Your task to perform on an android device: search for starred emails in the gmail app Image 0: 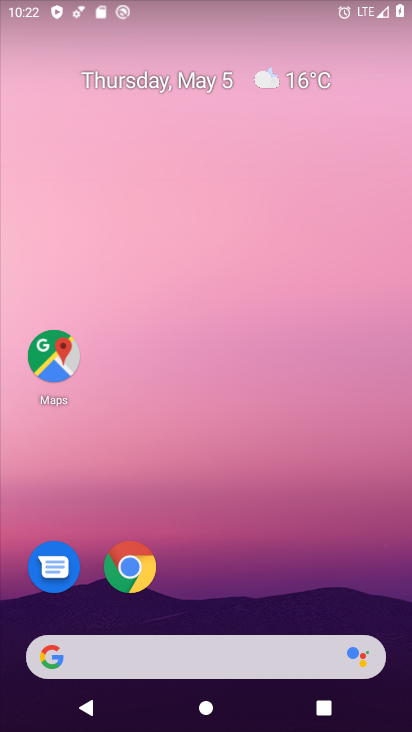
Step 0: drag from (284, 531) to (306, 74)
Your task to perform on an android device: search for starred emails in the gmail app Image 1: 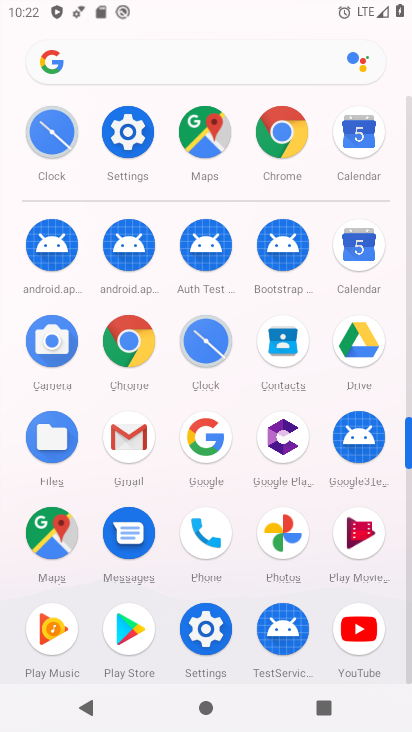
Step 1: click (138, 438)
Your task to perform on an android device: search for starred emails in the gmail app Image 2: 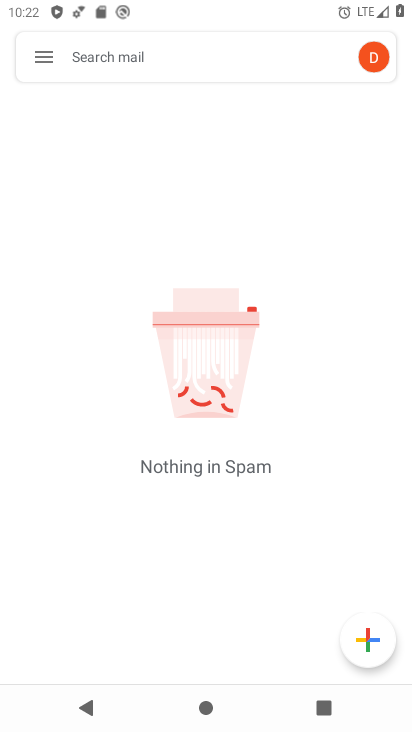
Step 2: click (42, 58)
Your task to perform on an android device: search for starred emails in the gmail app Image 3: 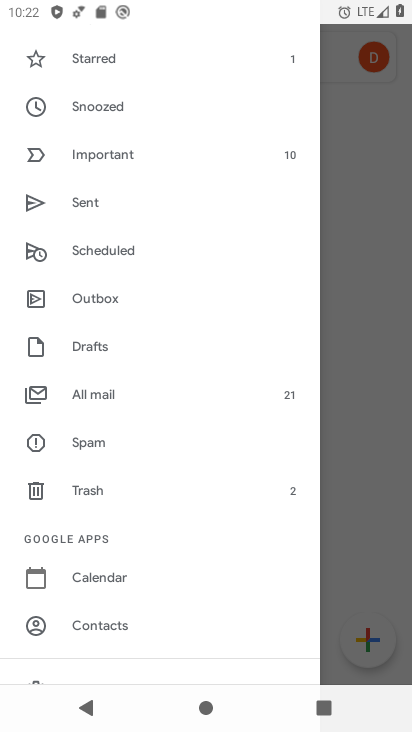
Step 3: click (81, 59)
Your task to perform on an android device: search for starred emails in the gmail app Image 4: 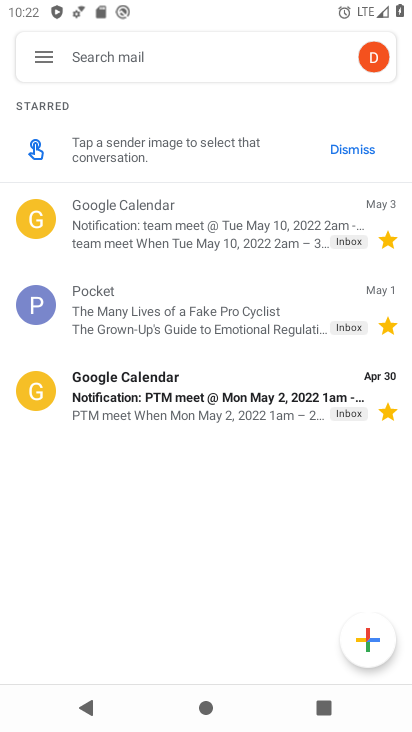
Step 4: task complete